Your task to perform on an android device: Go to sound settings Image 0: 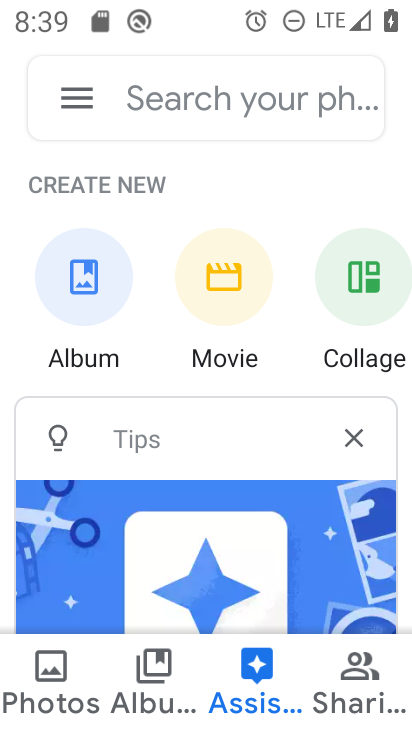
Step 0: press home button
Your task to perform on an android device: Go to sound settings Image 1: 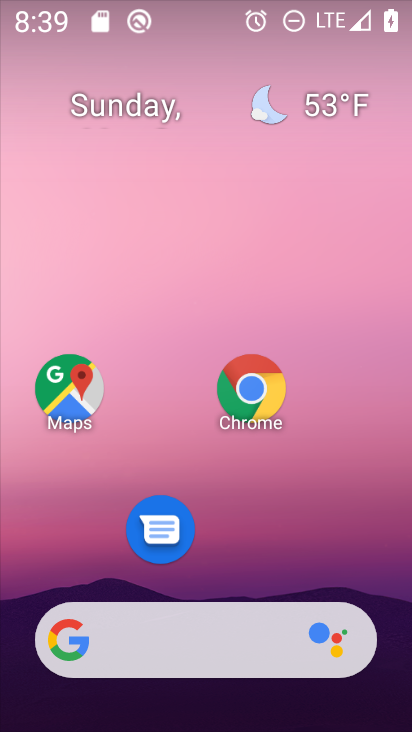
Step 1: drag from (256, 549) to (348, 71)
Your task to perform on an android device: Go to sound settings Image 2: 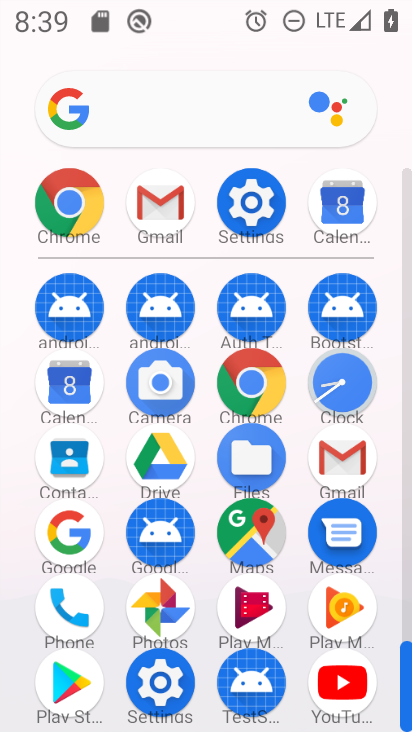
Step 2: click (254, 220)
Your task to perform on an android device: Go to sound settings Image 3: 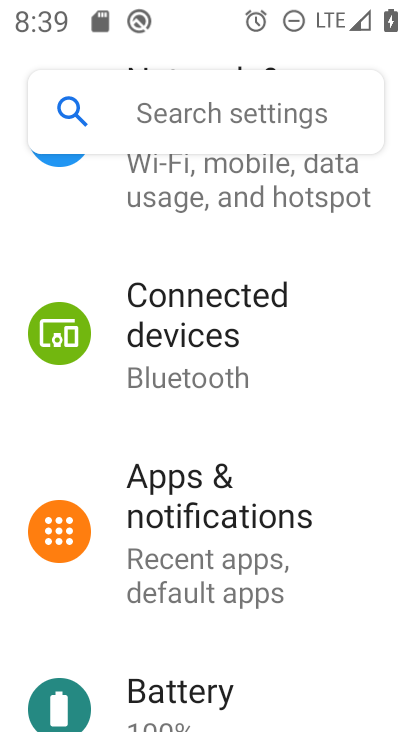
Step 3: drag from (190, 559) to (286, 134)
Your task to perform on an android device: Go to sound settings Image 4: 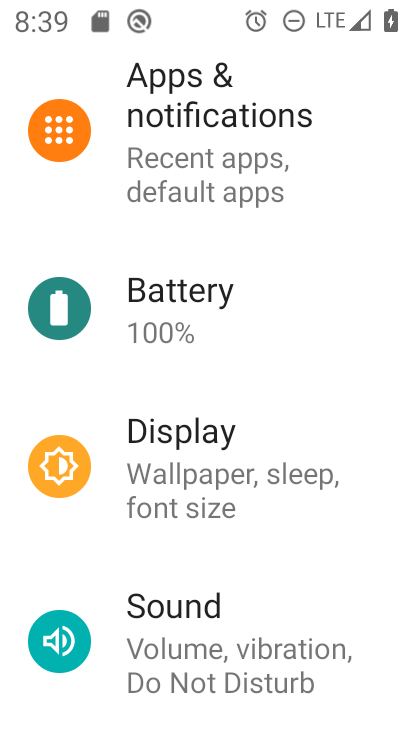
Step 4: click (158, 611)
Your task to perform on an android device: Go to sound settings Image 5: 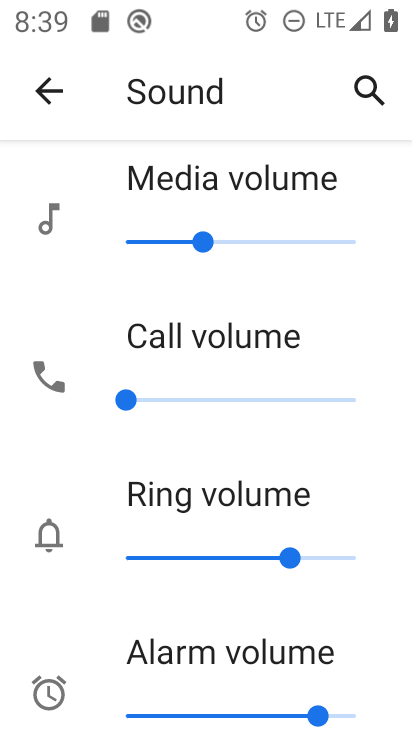
Step 5: task complete